Your task to perform on an android device: Open Yahoo.com Image 0: 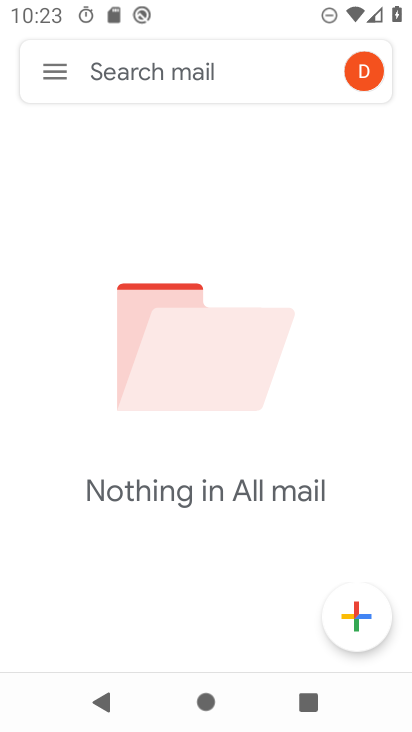
Step 0: press home button
Your task to perform on an android device: Open Yahoo.com Image 1: 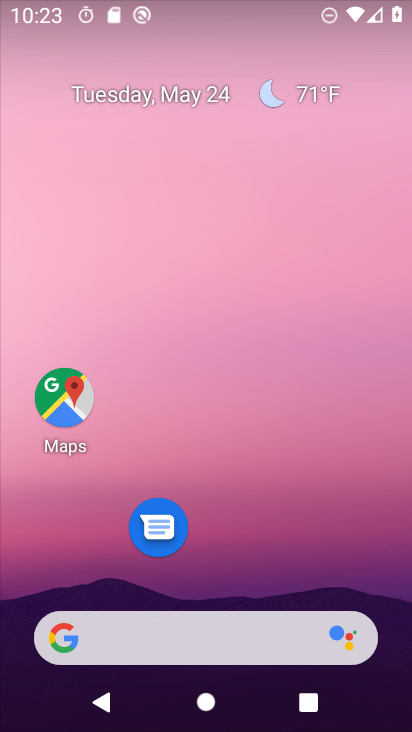
Step 1: drag from (289, 560) to (326, 93)
Your task to perform on an android device: Open Yahoo.com Image 2: 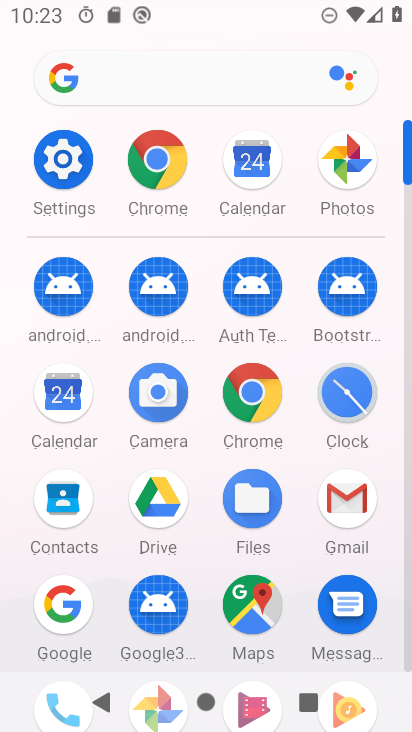
Step 2: click (253, 393)
Your task to perform on an android device: Open Yahoo.com Image 3: 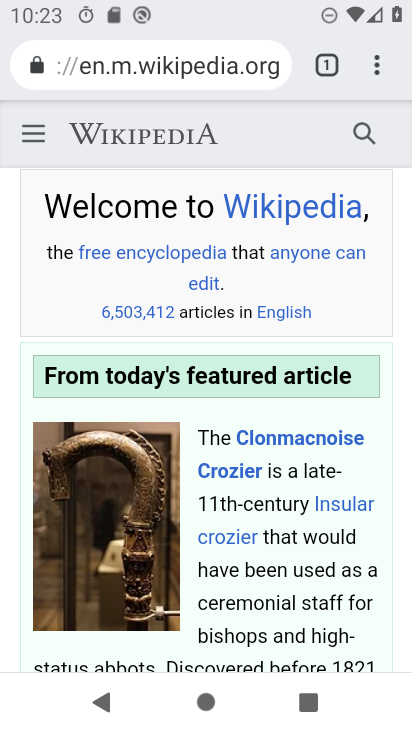
Step 3: press back button
Your task to perform on an android device: Open Yahoo.com Image 4: 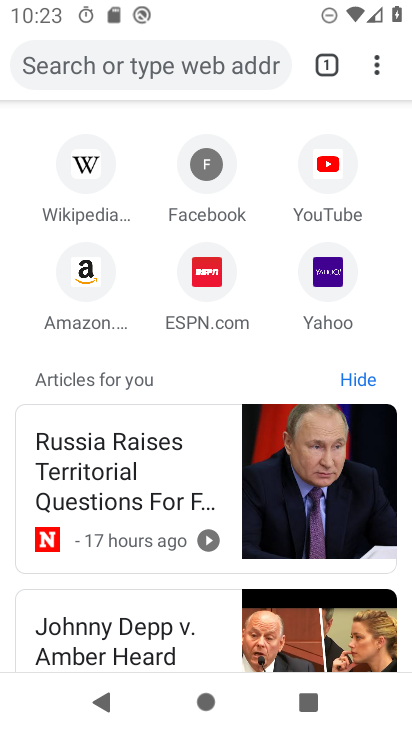
Step 4: click (329, 279)
Your task to perform on an android device: Open Yahoo.com Image 5: 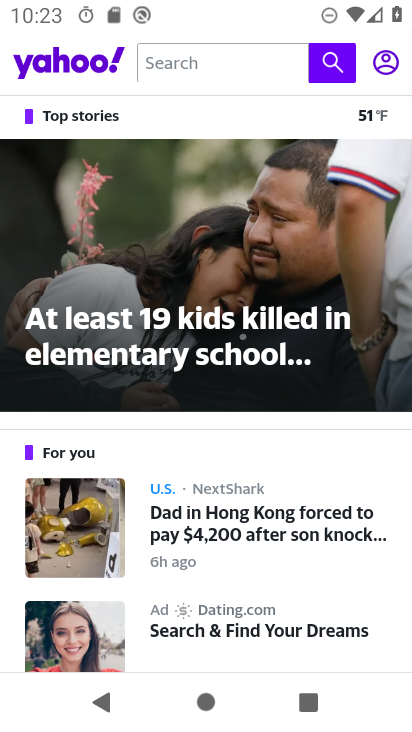
Step 5: task complete